Your task to perform on an android device: turn off location history Image 0: 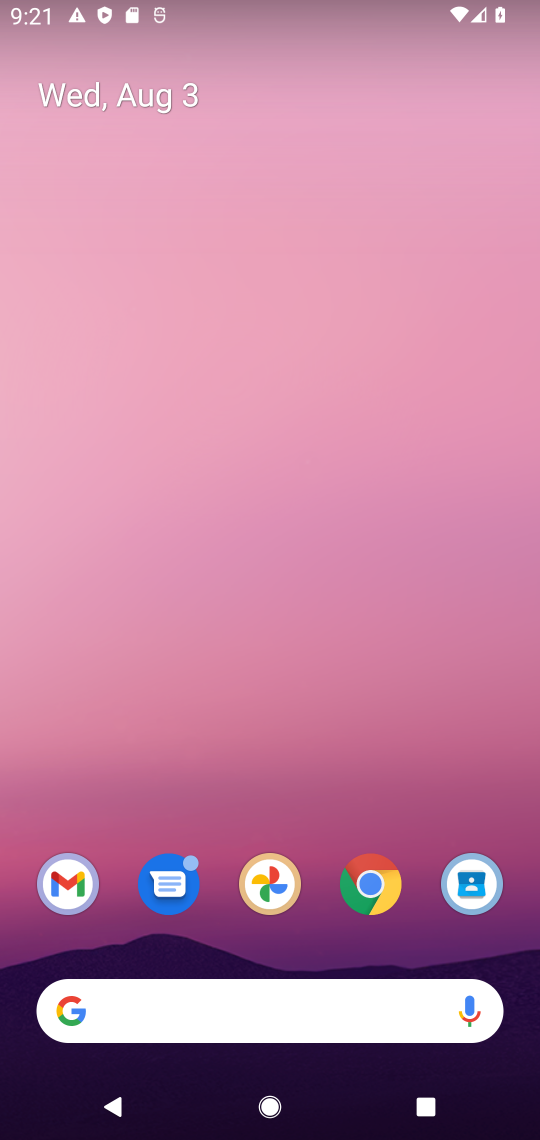
Step 0: drag from (380, 827) to (341, 96)
Your task to perform on an android device: turn off location history Image 1: 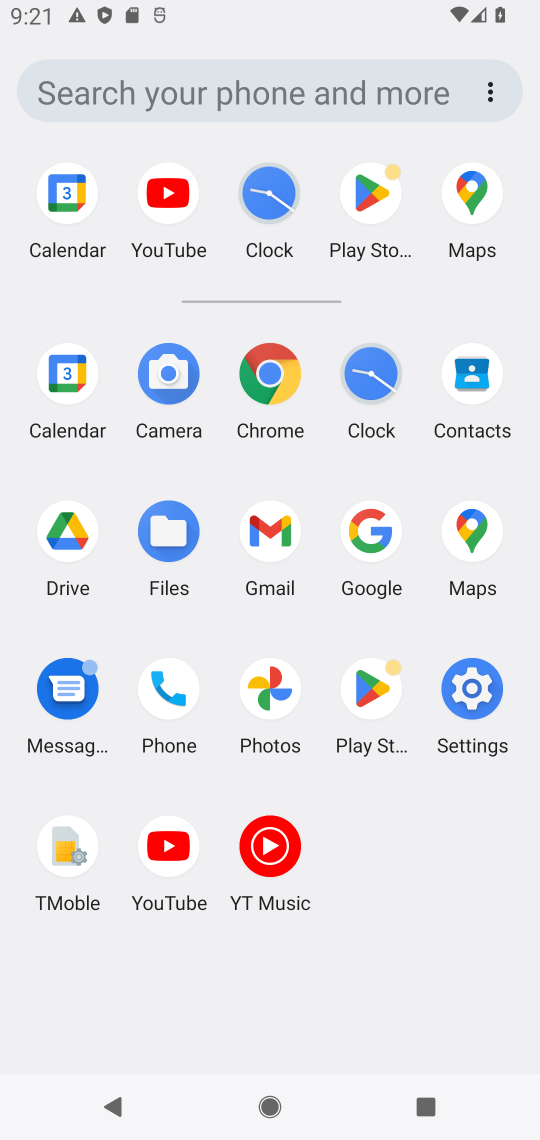
Step 1: click (467, 690)
Your task to perform on an android device: turn off location history Image 2: 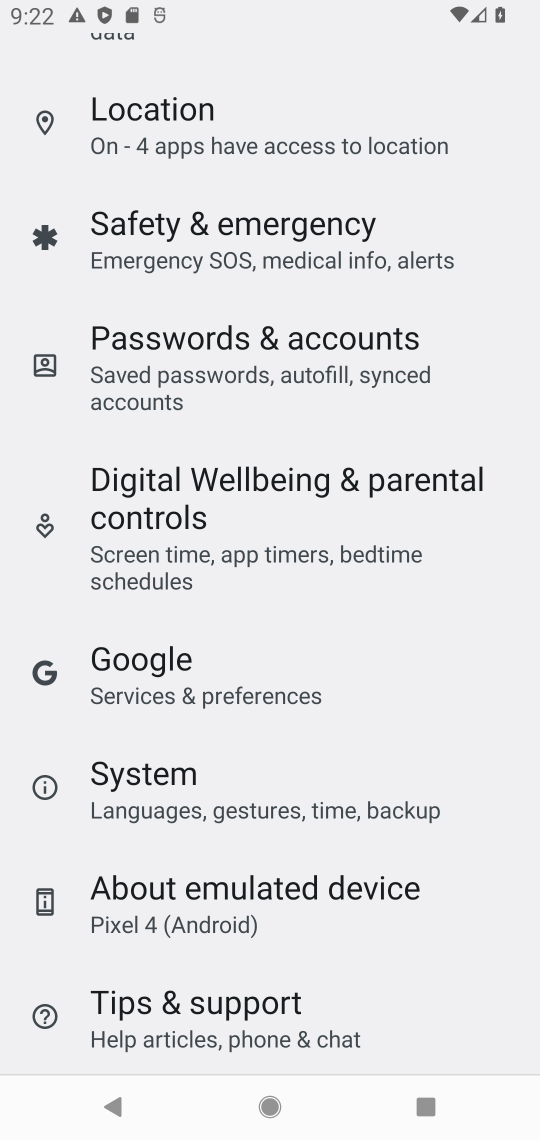
Step 2: drag from (276, 263) to (278, 729)
Your task to perform on an android device: turn off location history Image 3: 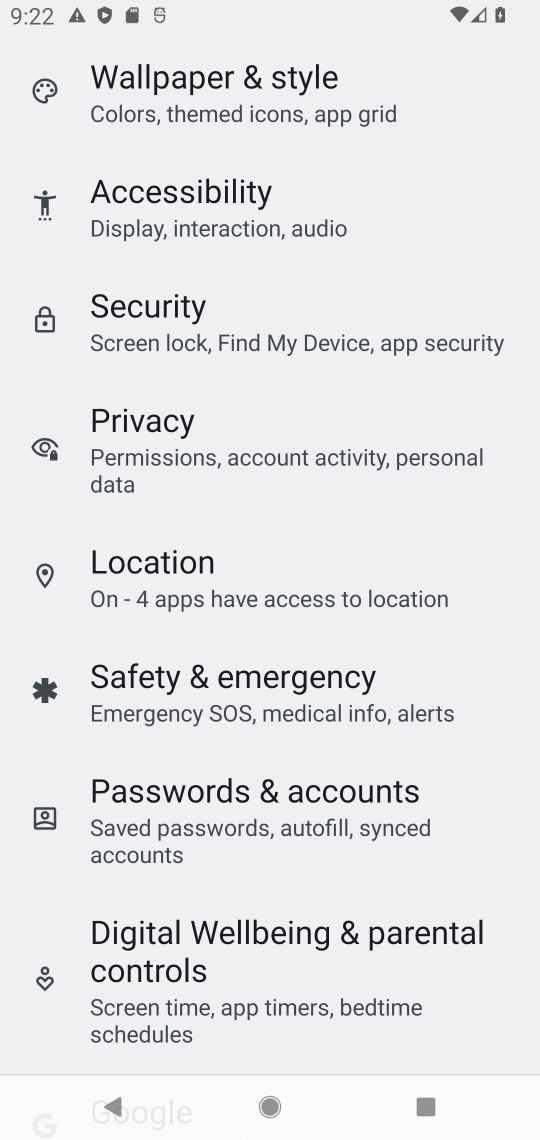
Step 3: click (180, 574)
Your task to perform on an android device: turn off location history Image 4: 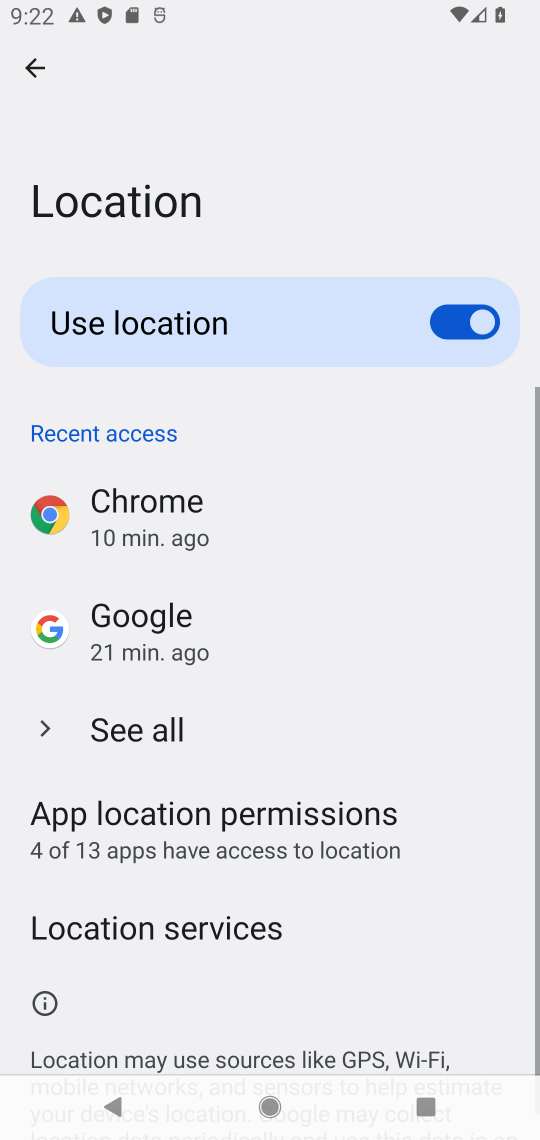
Step 4: click (441, 339)
Your task to perform on an android device: turn off location history Image 5: 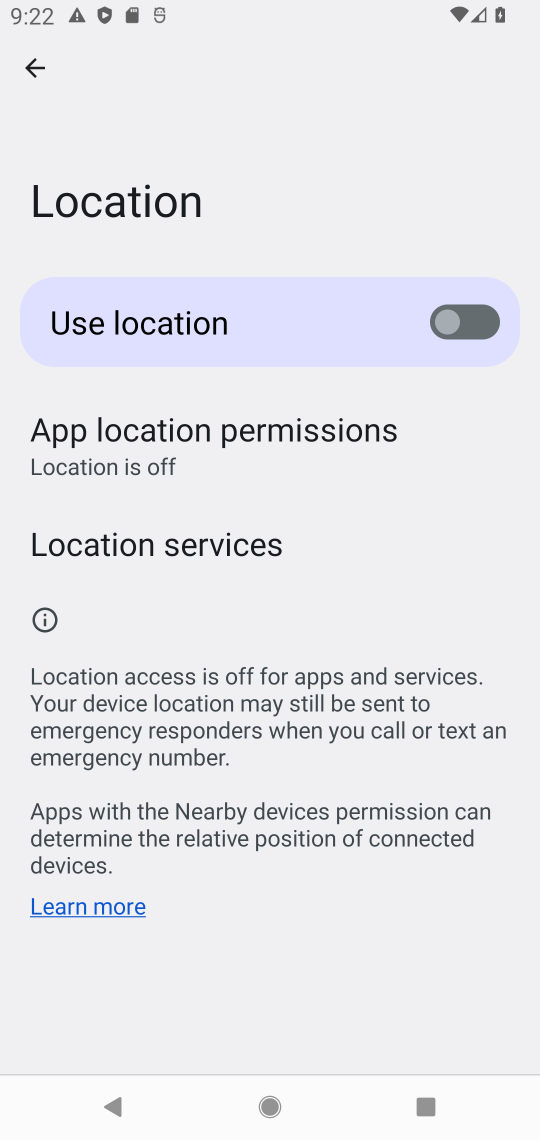
Step 5: task complete